Your task to perform on an android device: toggle notifications settings in the gmail app Image 0: 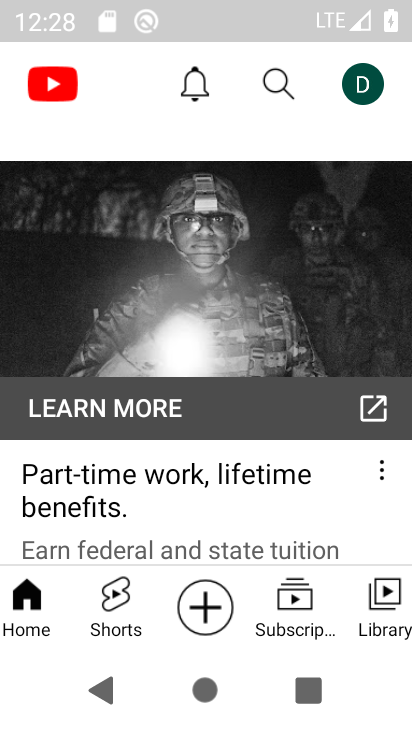
Step 0: press home button
Your task to perform on an android device: toggle notifications settings in the gmail app Image 1: 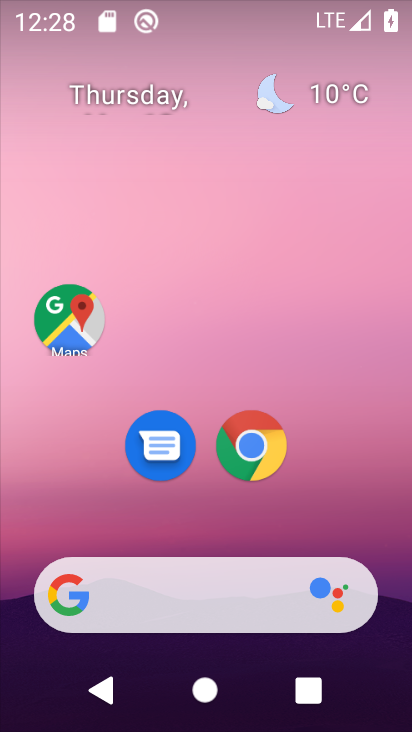
Step 1: drag from (208, 486) to (250, 89)
Your task to perform on an android device: toggle notifications settings in the gmail app Image 2: 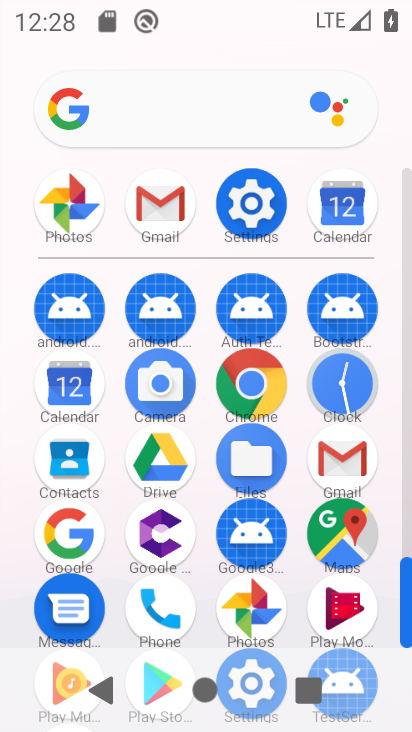
Step 2: click (161, 203)
Your task to perform on an android device: toggle notifications settings in the gmail app Image 3: 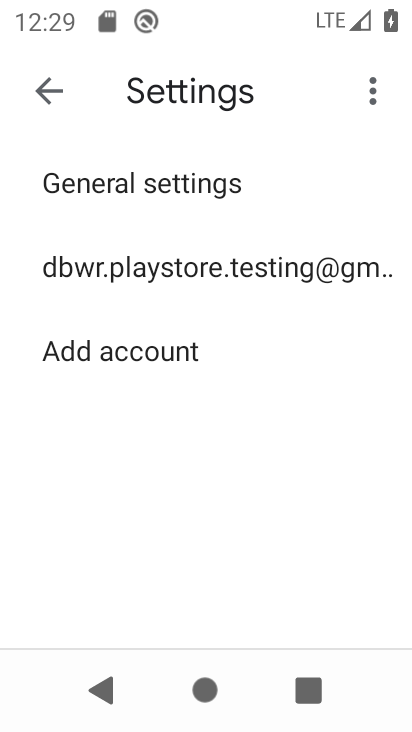
Step 3: click (164, 257)
Your task to perform on an android device: toggle notifications settings in the gmail app Image 4: 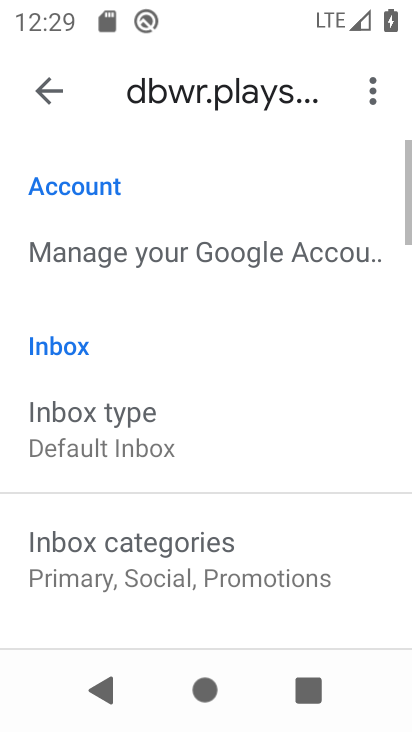
Step 4: drag from (141, 532) to (182, 348)
Your task to perform on an android device: toggle notifications settings in the gmail app Image 5: 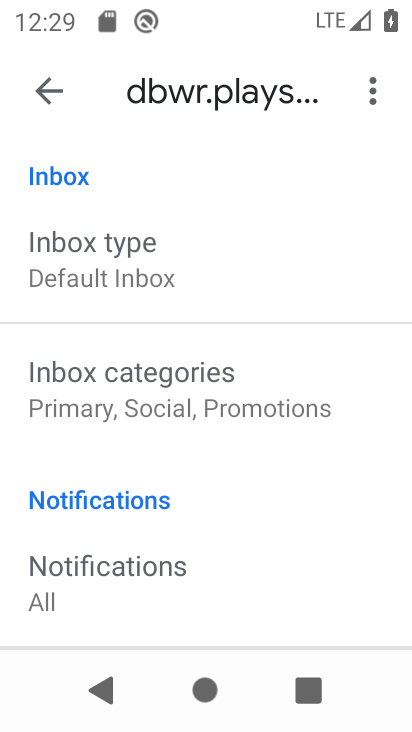
Step 5: drag from (152, 601) to (245, 257)
Your task to perform on an android device: toggle notifications settings in the gmail app Image 6: 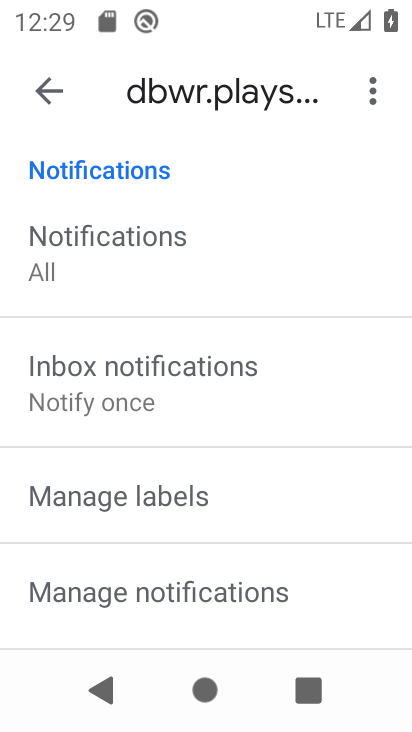
Step 6: press back button
Your task to perform on an android device: toggle notifications settings in the gmail app Image 7: 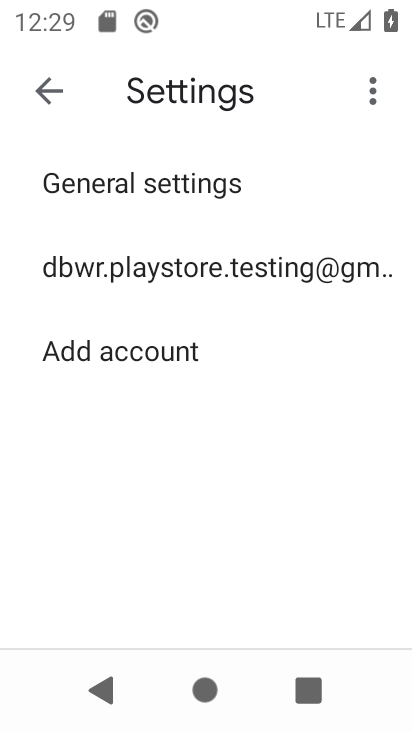
Step 7: click (147, 268)
Your task to perform on an android device: toggle notifications settings in the gmail app Image 8: 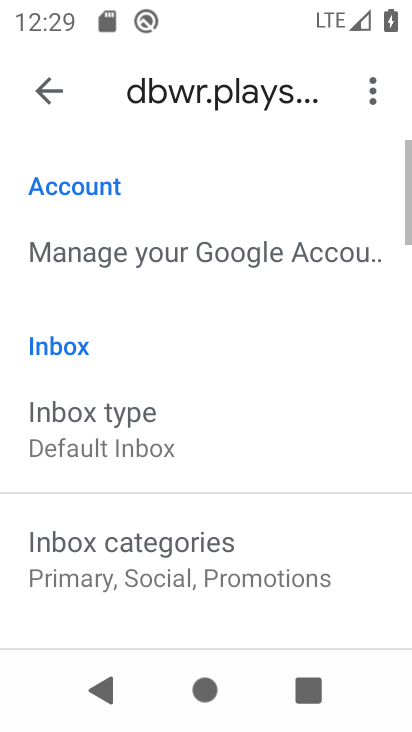
Step 8: drag from (123, 585) to (239, 109)
Your task to perform on an android device: toggle notifications settings in the gmail app Image 9: 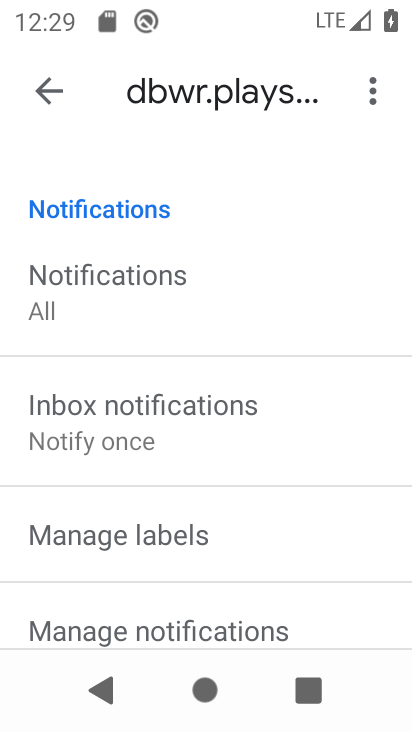
Step 9: click (203, 630)
Your task to perform on an android device: toggle notifications settings in the gmail app Image 10: 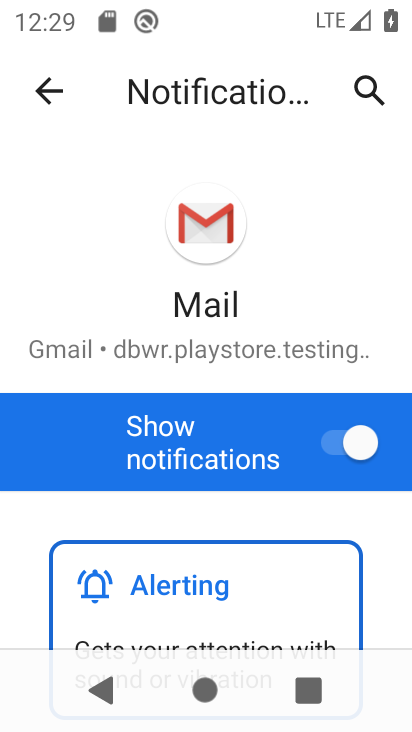
Step 10: click (348, 441)
Your task to perform on an android device: toggle notifications settings in the gmail app Image 11: 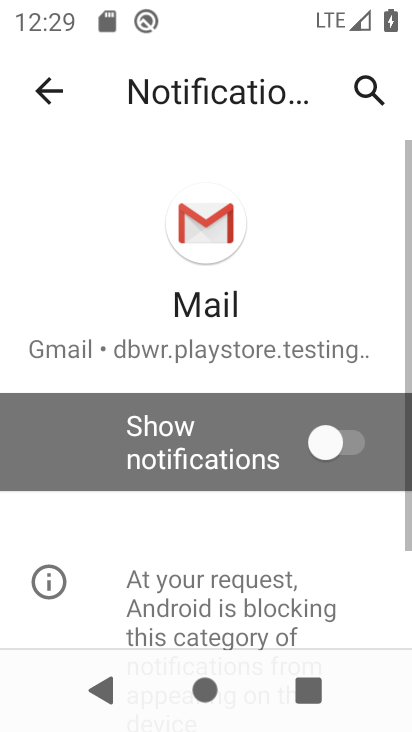
Step 11: task complete